Your task to perform on an android device: Open Yahoo.com Image 0: 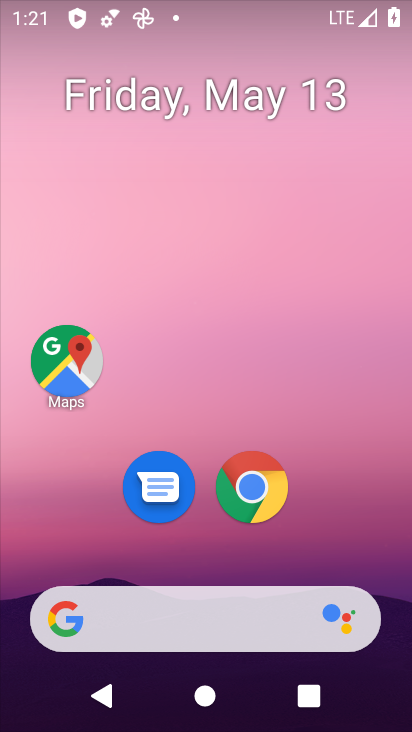
Step 0: drag from (299, 543) to (300, 171)
Your task to perform on an android device: Open Yahoo.com Image 1: 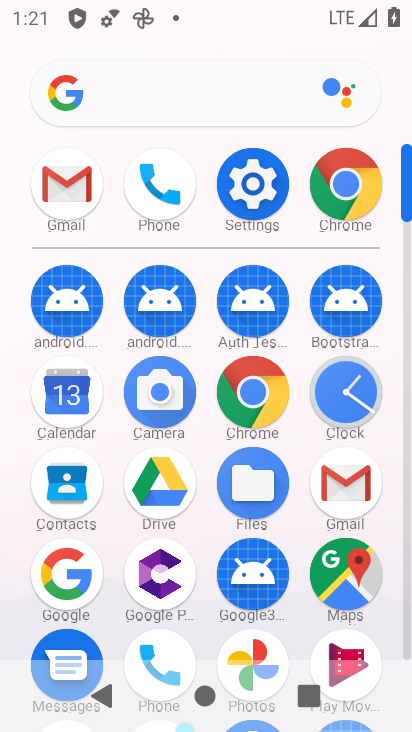
Step 1: click (273, 397)
Your task to perform on an android device: Open Yahoo.com Image 2: 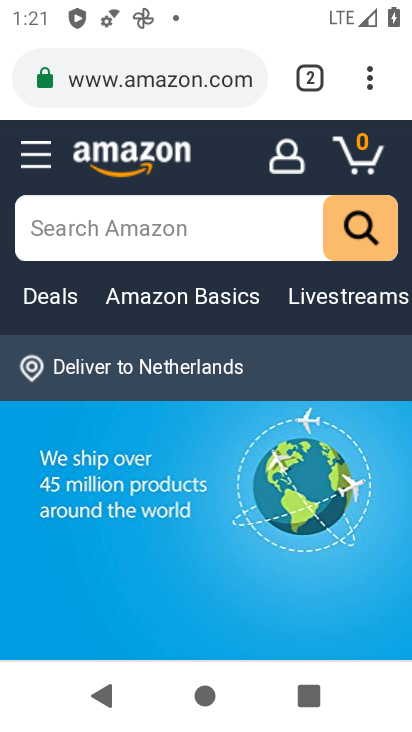
Step 2: click (192, 79)
Your task to perform on an android device: Open Yahoo.com Image 3: 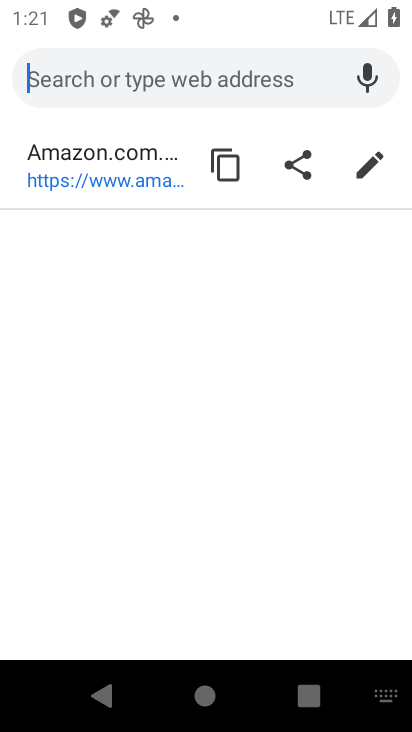
Step 3: type "yahoo.com"
Your task to perform on an android device: Open Yahoo.com Image 4: 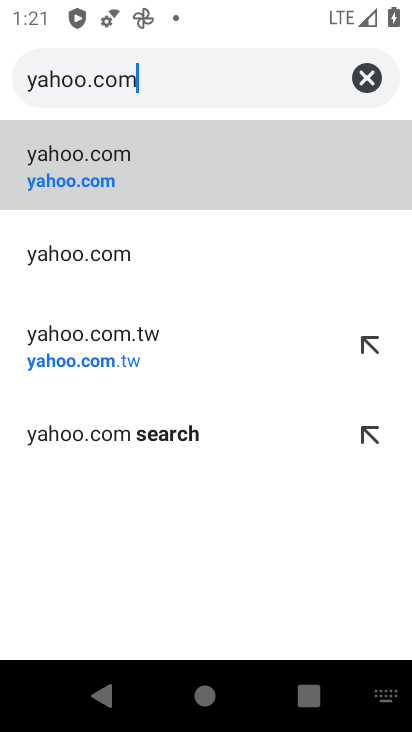
Step 4: click (140, 218)
Your task to perform on an android device: Open Yahoo.com Image 5: 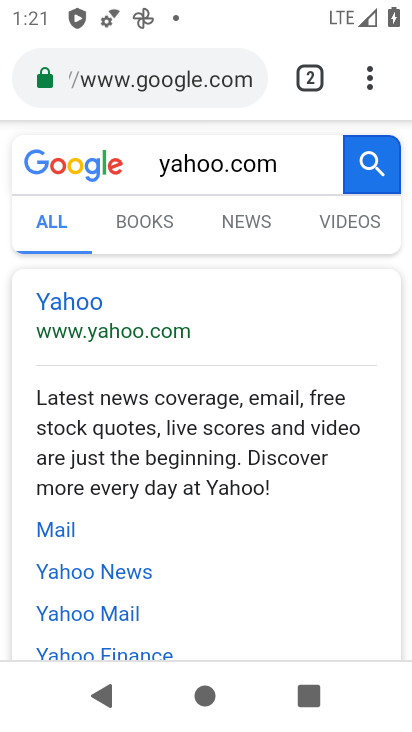
Step 5: click (104, 293)
Your task to perform on an android device: Open Yahoo.com Image 6: 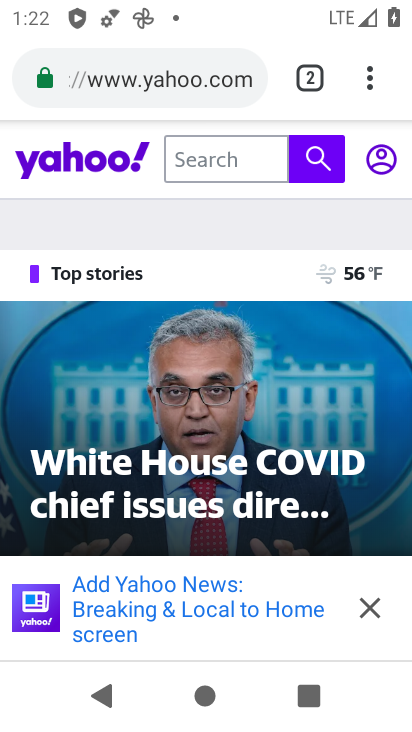
Step 6: task complete